Your task to perform on an android device: Go to network settings Image 0: 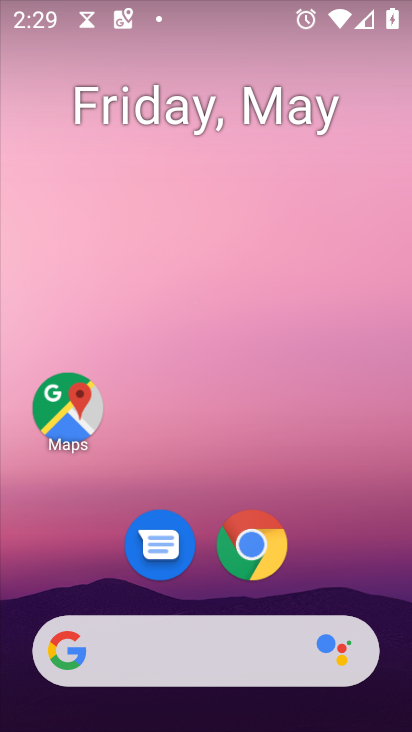
Step 0: drag from (297, 448) to (219, 91)
Your task to perform on an android device: Go to network settings Image 1: 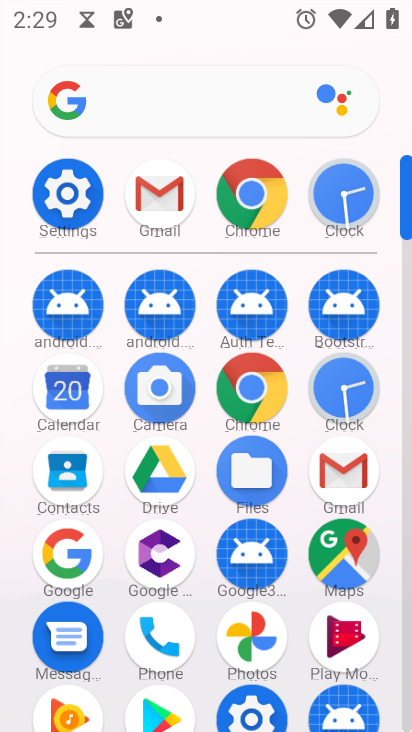
Step 1: click (69, 188)
Your task to perform on an android device: Go to network settings Image 2: 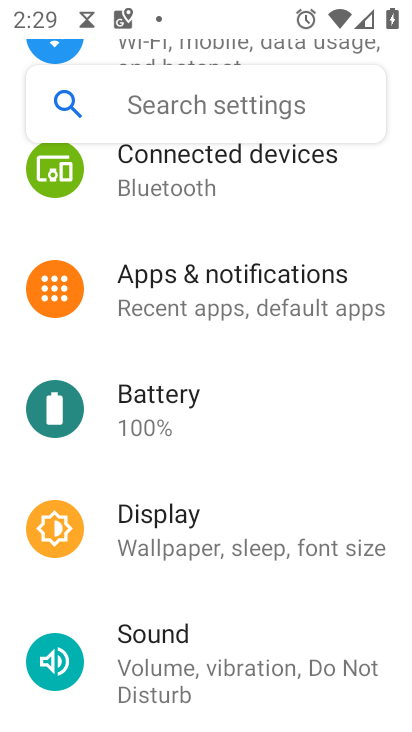
Step 2: drag from (253, 205) to (260, 615)
Your task to perform on an android device: Go to network settings Image 3: 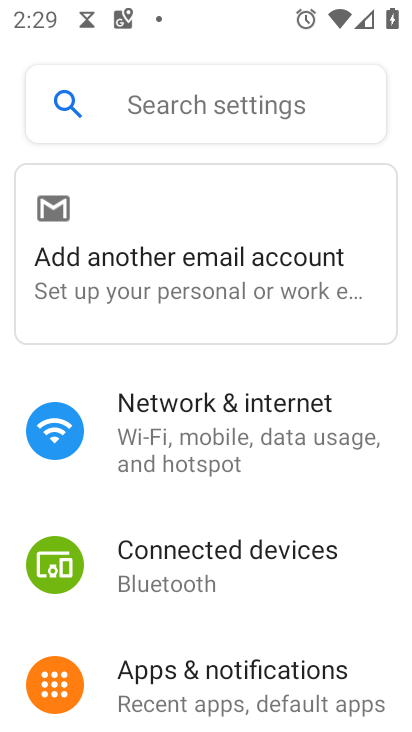
Step 3: click (248, 455)
Your task to perform on an android device: Go to network settings Image 4: 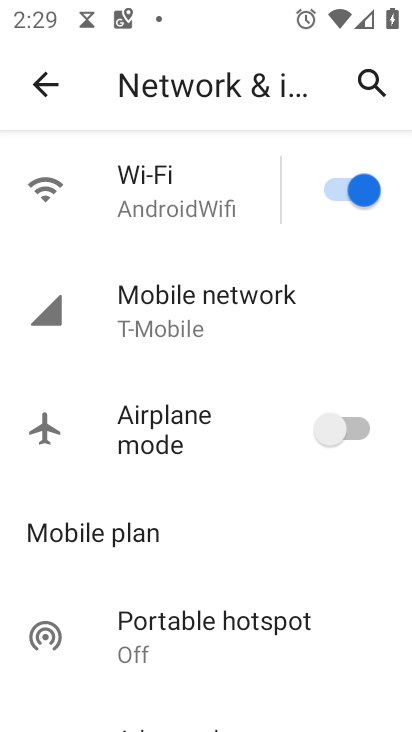
Step 4: task complete